Your task to perform on an android device: open a new tab in the chrome app Image 0: 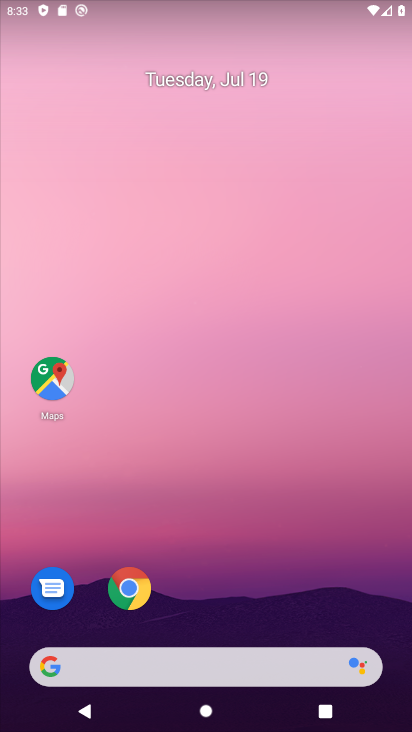
Step 0: drag from (256, 547) to (287, 55)
Your task to perform on an android device: open a new tab in the chrome app Image 1: 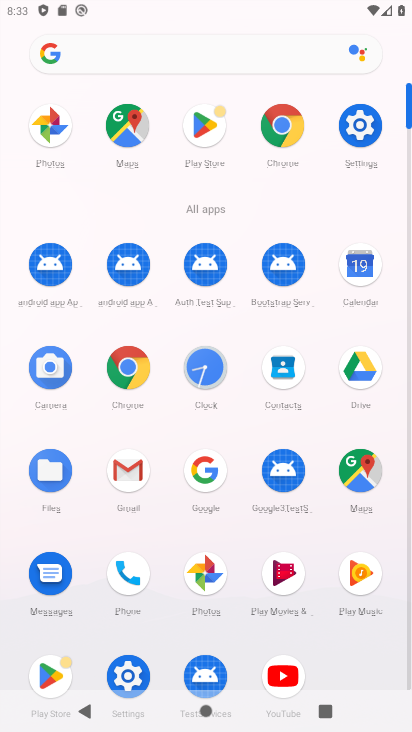
Step 1: click (276, 123)
Your task to perform on an android device: open a new tab in the chrome app Image 2: 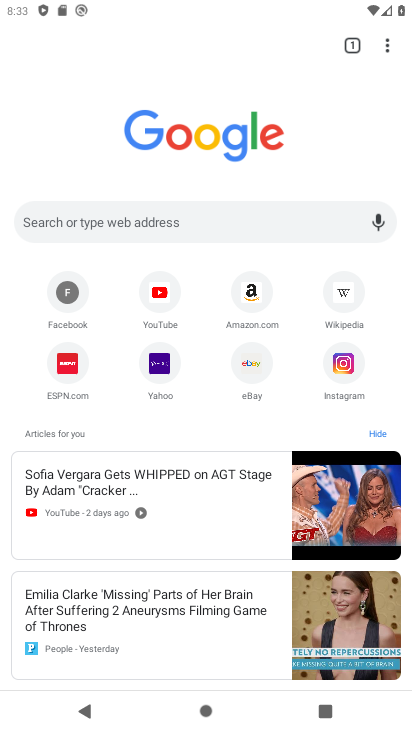
Step 2: task complete